Your task to perform on an android device: delete a single message in the gmail app Image 0: 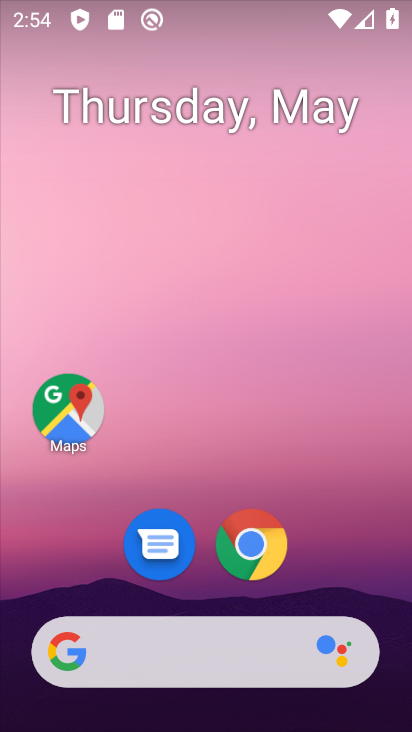
Step 0: drag from (128, 542) to (232, 91)
Your task to perform on an android device: delete a single message in the gmail app Image 1: 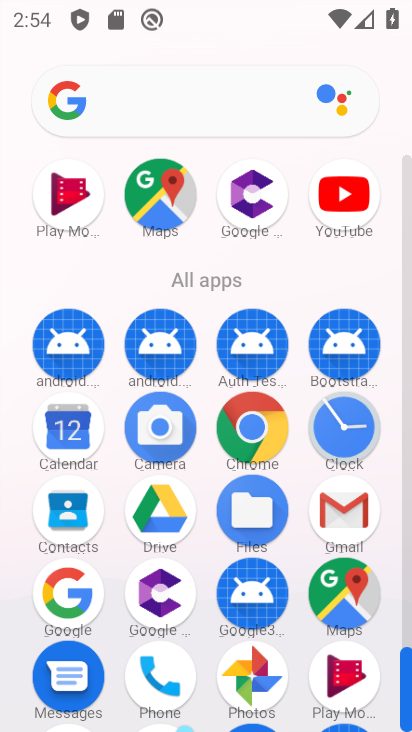
Step 1: drag from (128, 662) to (189, 408)
Your task to perform on an android device: delete a single message in the gmail app Image 2: 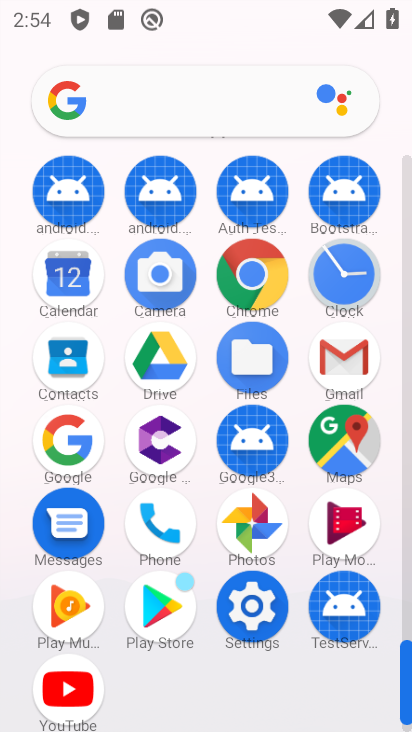
Step 2: click (362, 361)
Your task to perform on an android device: delete a single message in the gmail app Image 3: 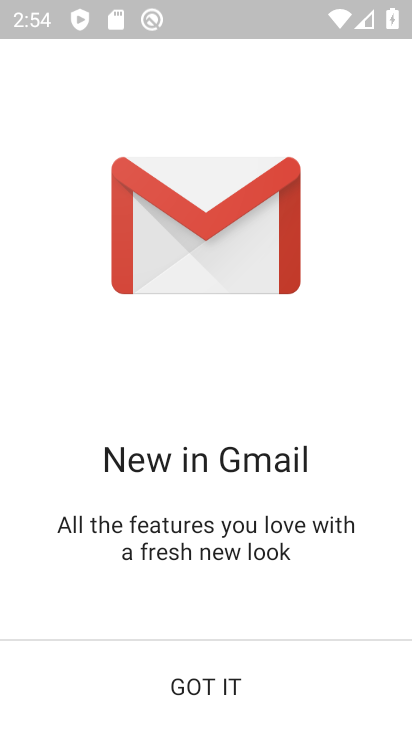
Step 3: click (232, 674)
Your task to perform on an android device: delete a single message in the gmail app Image 4: 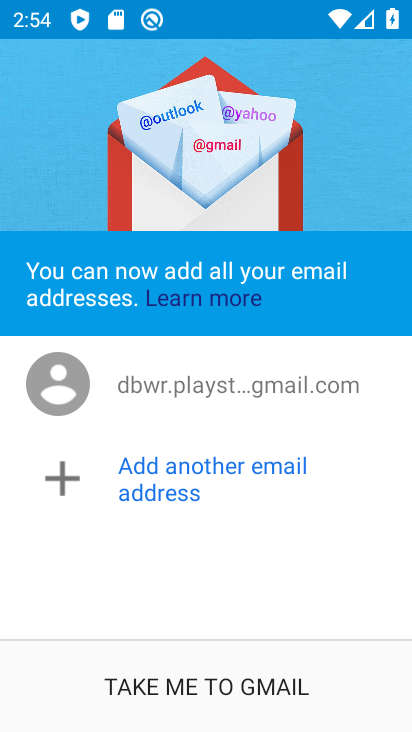
Step 4: click (237, 676)
Your task to perform on an android device: delete a single message in the gmail app Image 5: 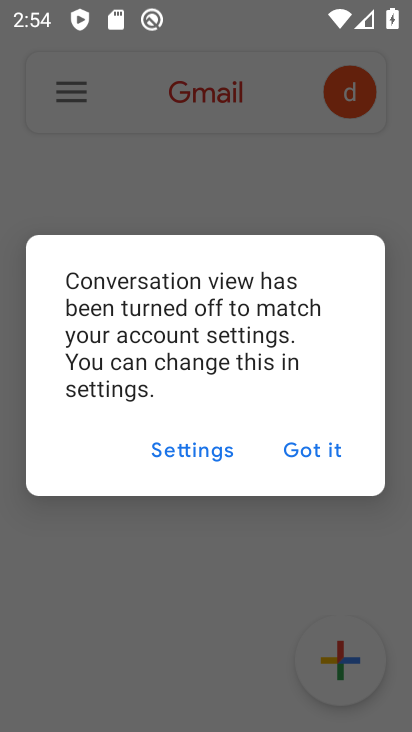
Step 5: click (311, 441)
Your task to perform on an android device: delete a single message in the gmail app Image 6: 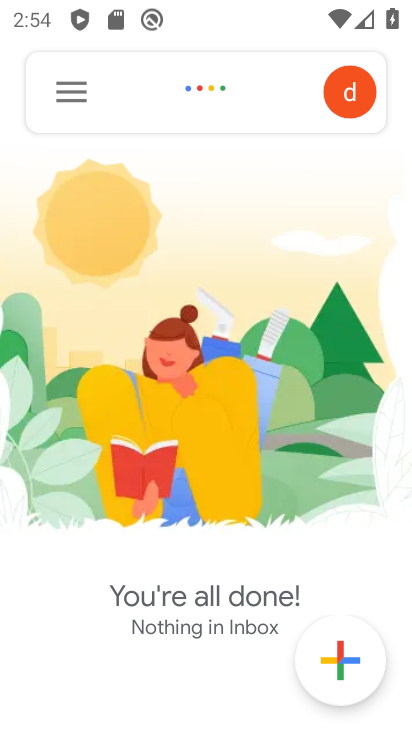
Step 6: click (82, 97)
Your task to perform on an android device: delete a single message in the gmail app Image 7: 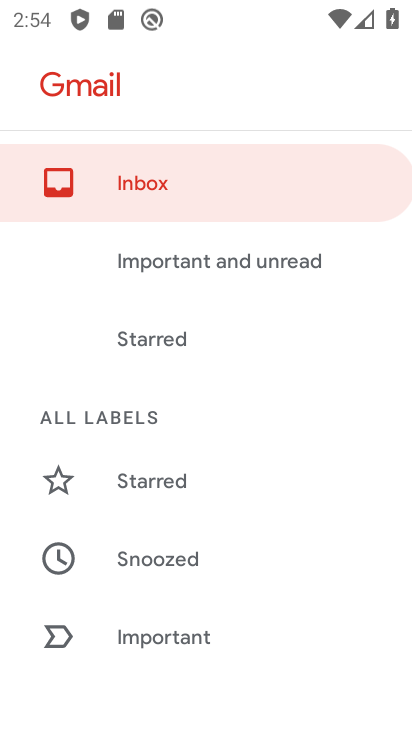
Step 7: drag from (188, 629) to (304, 263)
Your task to perform on an android device: delete a single message in the gmail app Image 8: 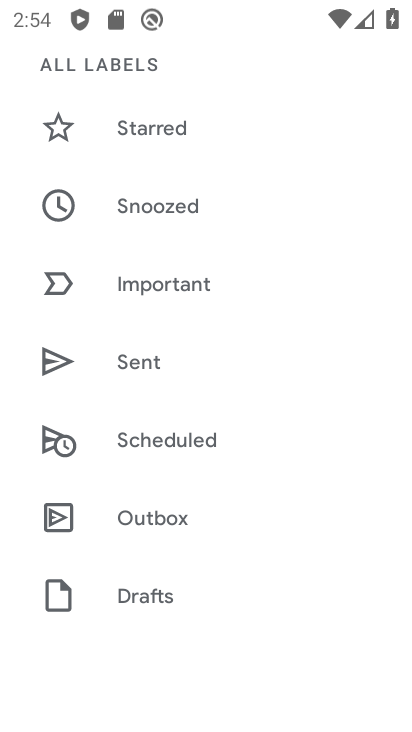
Step 8: drag from (239, 586) to (287, 365)
Your task to perform on an android device: delete a single message in the gmail app Image 9: 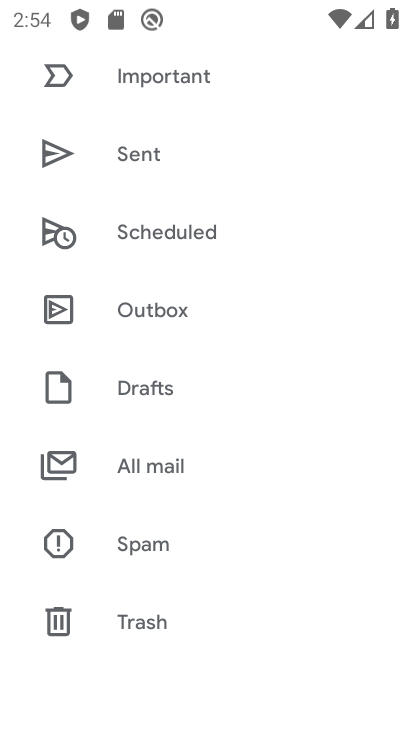
Step 9: click (190, 494)
Your task to perform on an android device: delete a single message in the gmail app Image 10: 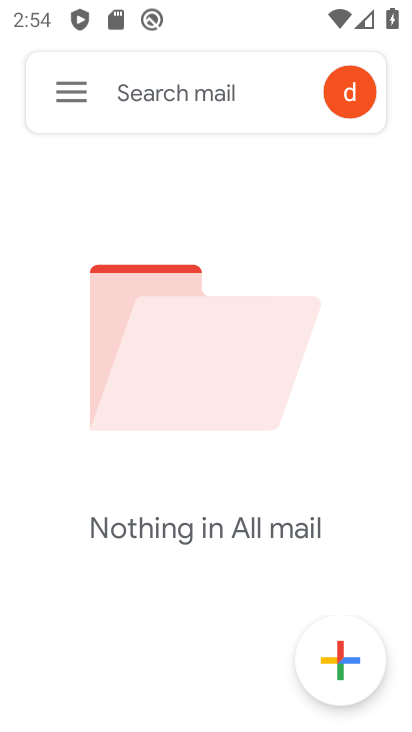
Step 10: task complete